Your task to perform on an android device: Open ESPN.com Image 0: 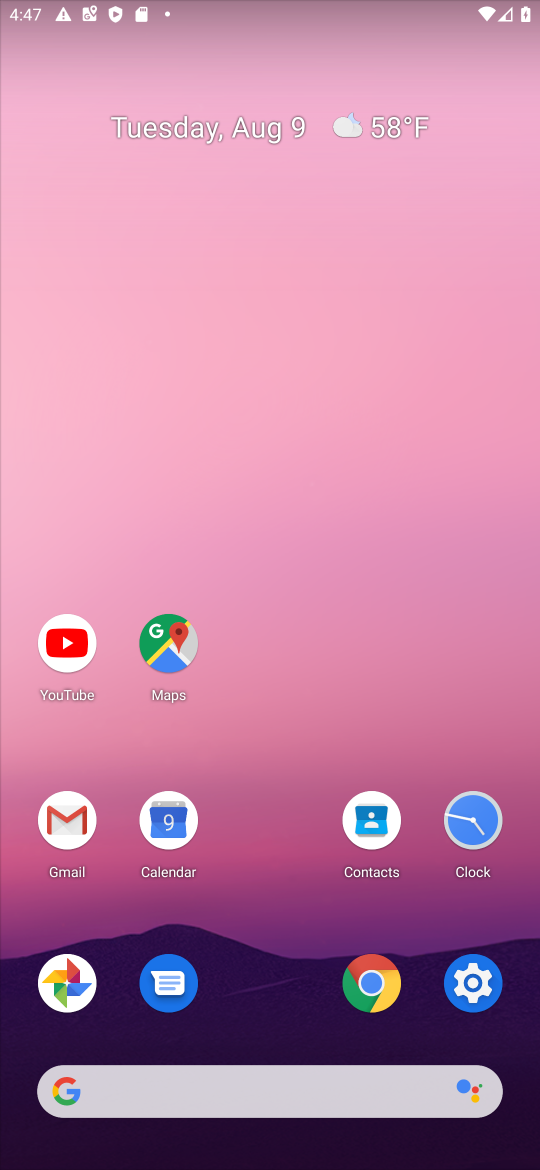
Step 0: click (376, 983)
Your task to perform on an android device: Open ESPN.com Image 1: 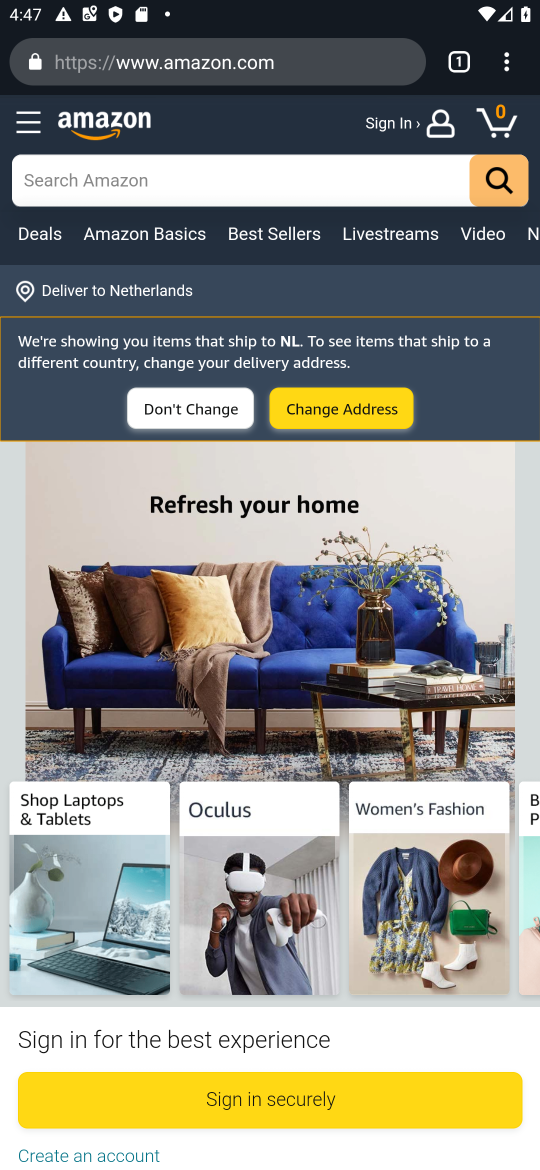
Step 1: click (498, 63)
Your task to perform on an android device: Open ESPN.com Image 2: 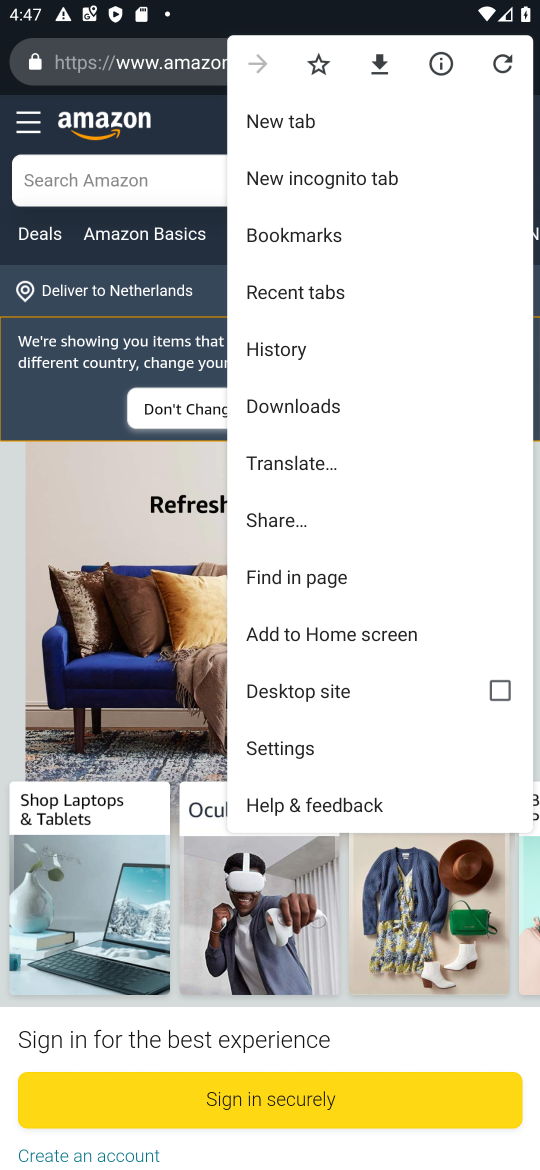
Step 2: click (277, 117)
Your task to perform on an android device: Open ESPN.com Image 3: 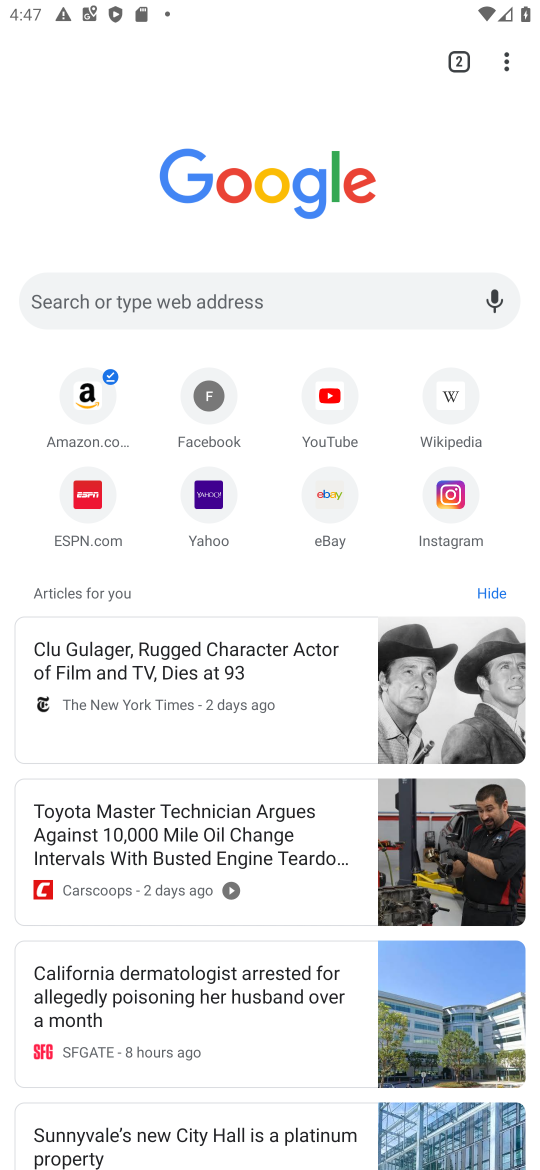
Step 3: click (73, 506)
Your task to perform on an android device: Open ESPN.com Image 4: 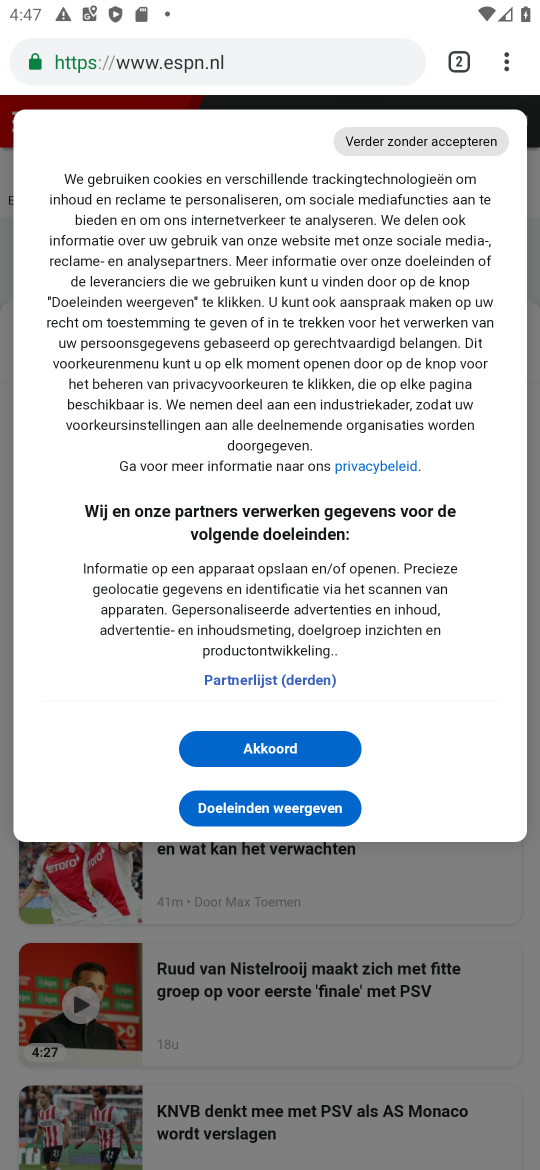
Step 4: click (297, 755)
Your task to perform on an android device: Open ESPN.com Image 5: 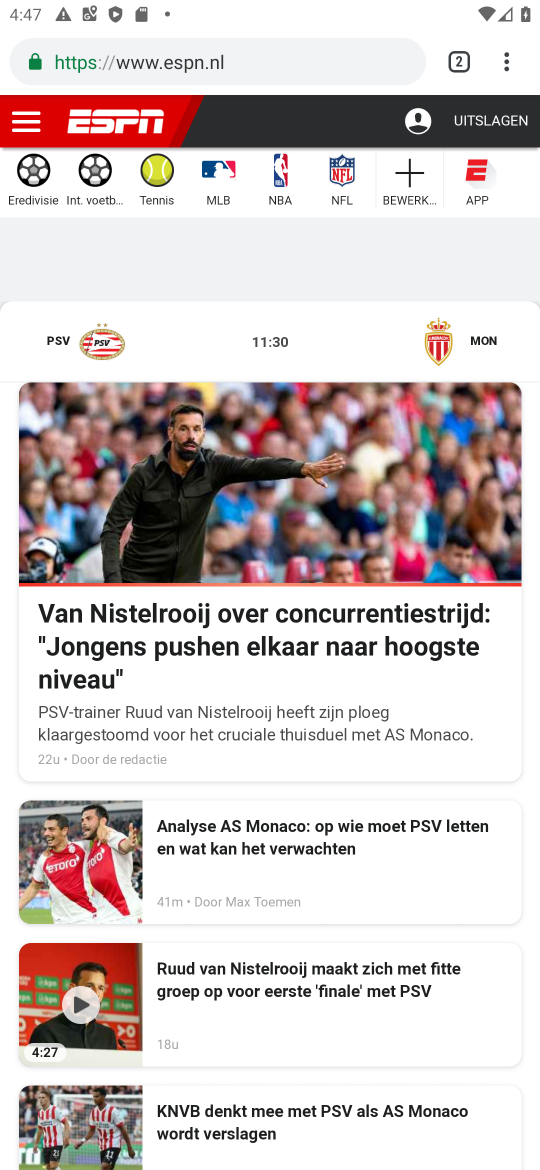
Step 5: task complete